Your task to perform on an android device: star an email in the gmail app Image 0: 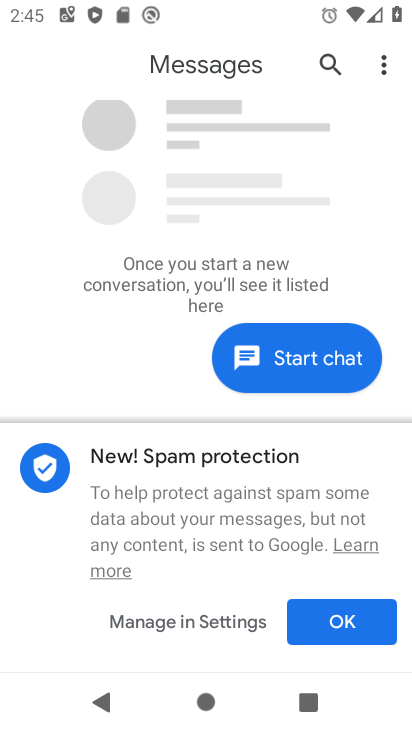
Step 0: press home button
Your task to perform on an android device: star an email in the gmail app Image 1: 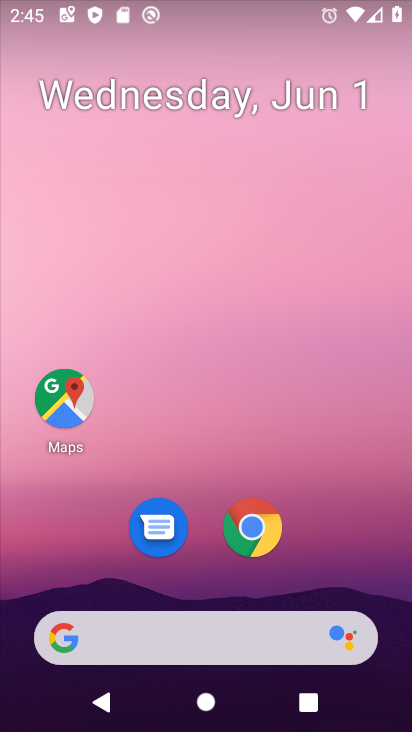
Step 1: drag from (323, 588) to (269, 138)
Your task to perform on an android device: star an email in the gmail app Image 2: 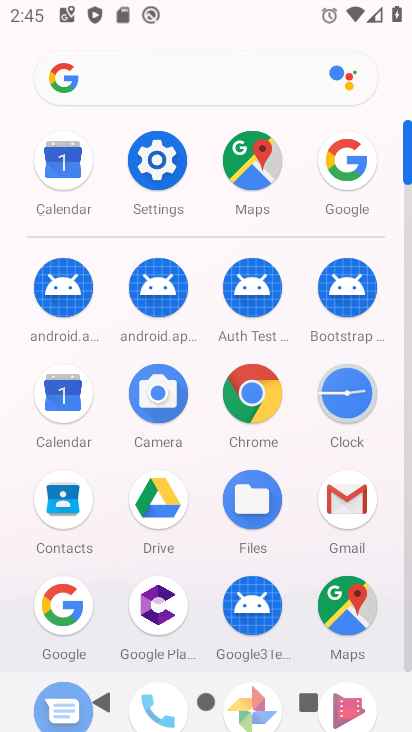
Step 2: click (347, 496)
Your task to perform on an android device: star an email in the gmail app Image 3: 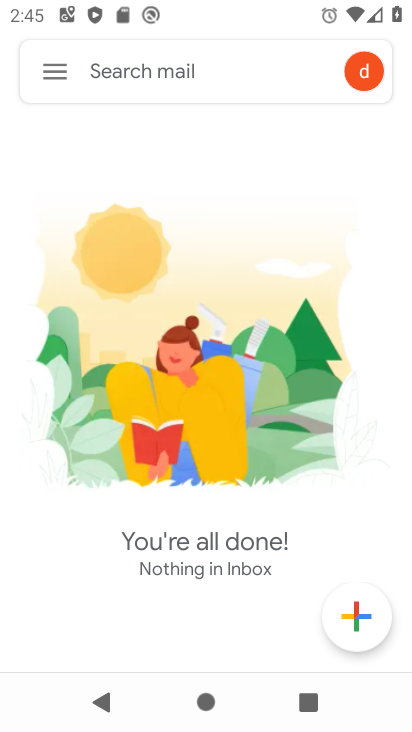
Step 3: click (55, 71)
Your task to perform on an android device: star an email in the gmail app Image 4: 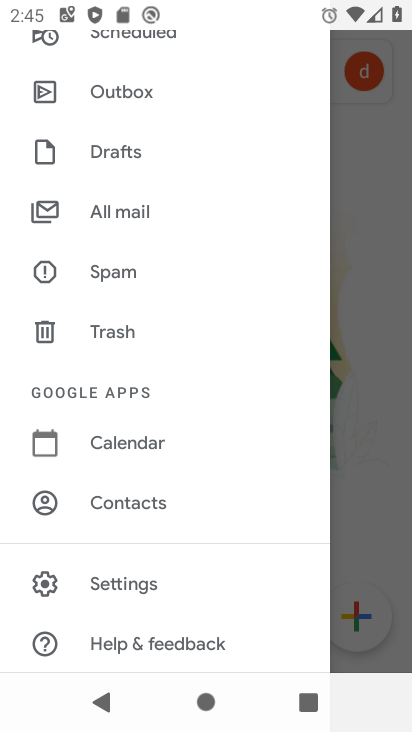
Step 4: drag from (161, 177) to (149, 315)
Your task to perform on an android device: star an email in the gmail app Image 5: 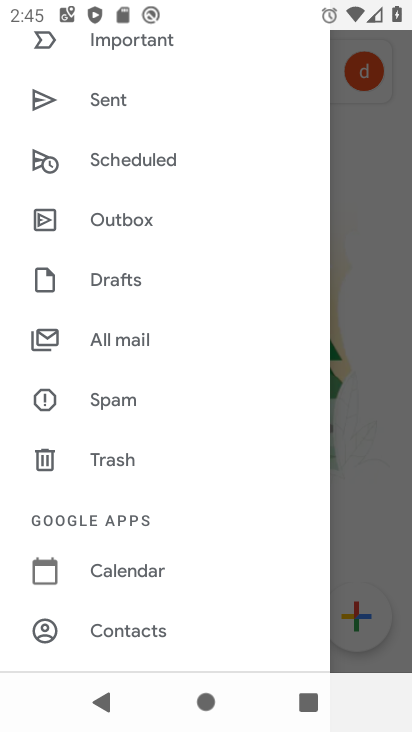
Step 5: drag from (169, 121) to (167, 295)
Your task to perform on an android device: star an email in the gmail app Image 6: 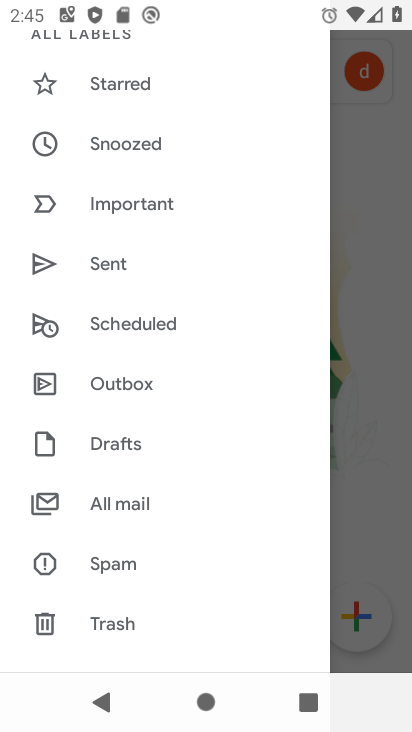
Step 6: drag from (166, 155) to (178, 275)
Your task to perform on an android device: star an email in the gmail app Image 7: 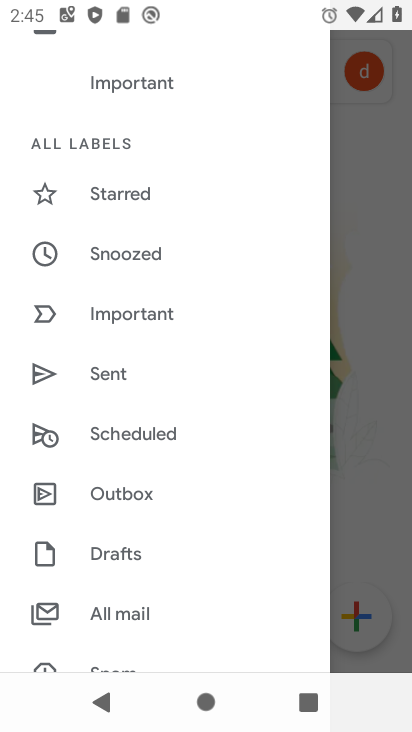
Step 7: click (141, 610)
Your task to perform on an android device: star an email in the gmail app Image 8: 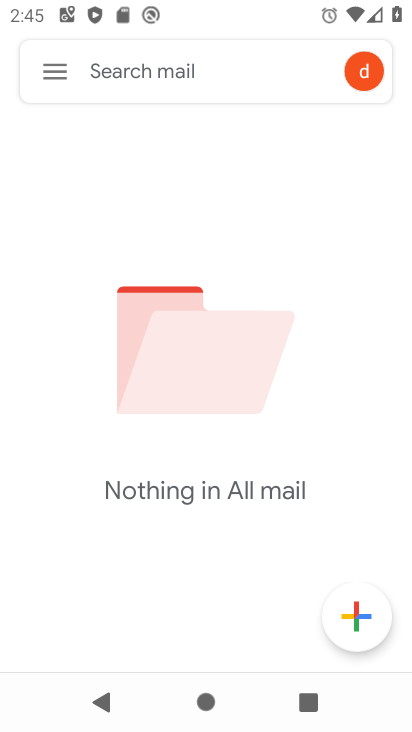
Step 8: click (64, 68)
Your task to perform on an android device: star an email in the gmail app Image 9: 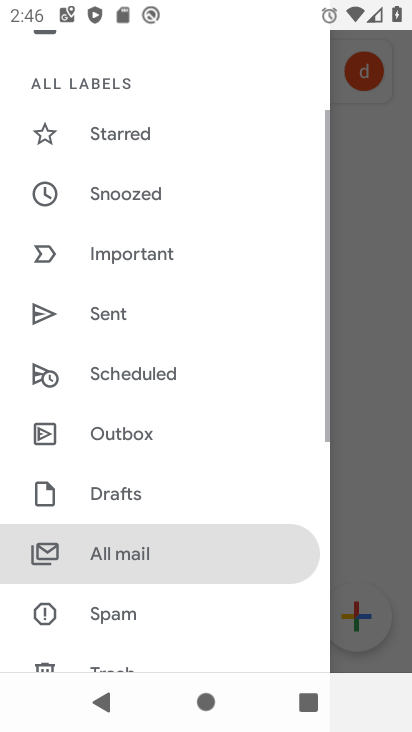
Step 9: drag from (177, 246) to (202, 539)
Your task to perform on an android device: star an email in the gmail app Image 10: 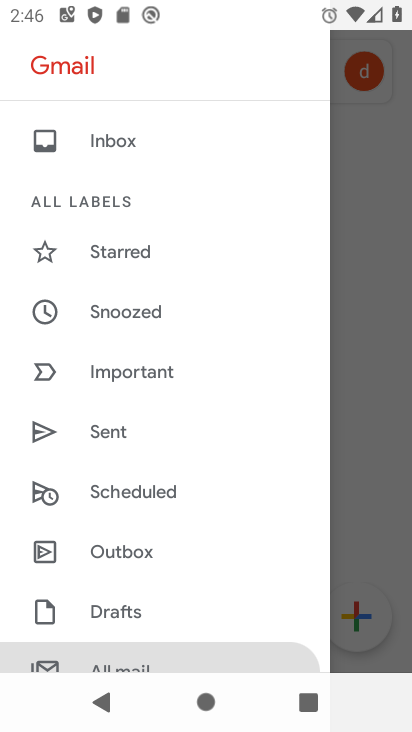
Step 10: click (149, 238)
Your task to perform on an android device: star an email in the gmail app Image 11: 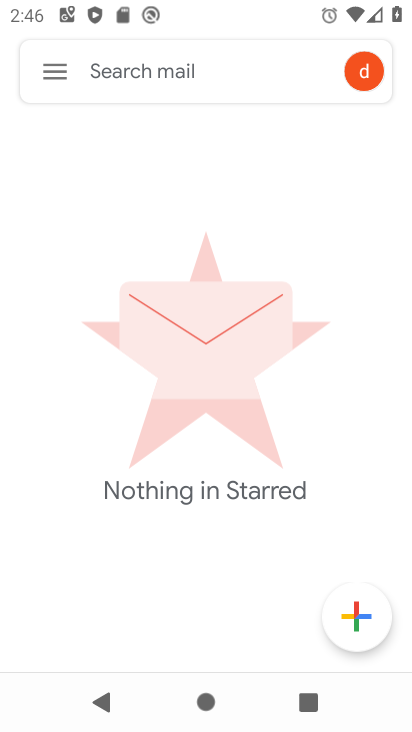
Step 11: task complete